Your task to perform on an android device: clear history in the chrome app Image 0: 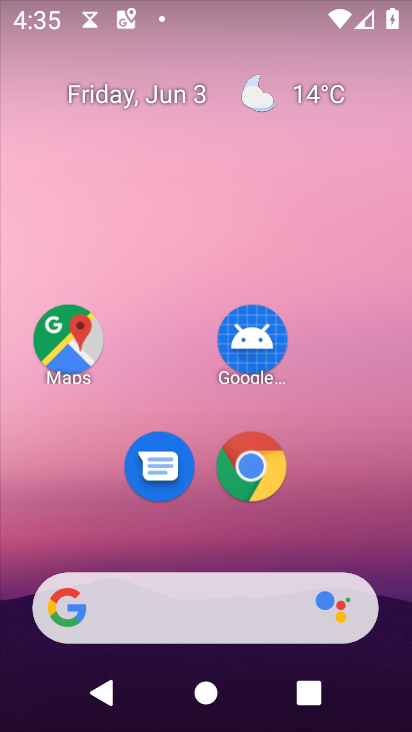
Step 0: click (265, 473)
Your task to perform on an android device: clear history in the chrome app Image 1: 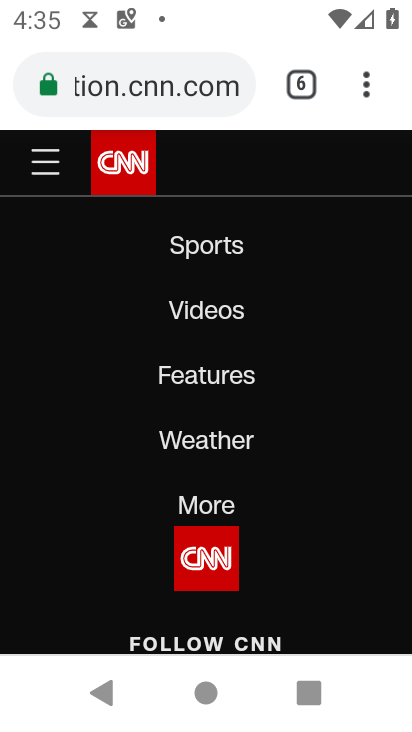
Step 1: click (359, 82)
Your task to perform on an android device: clear history in the chrome app Image 2: 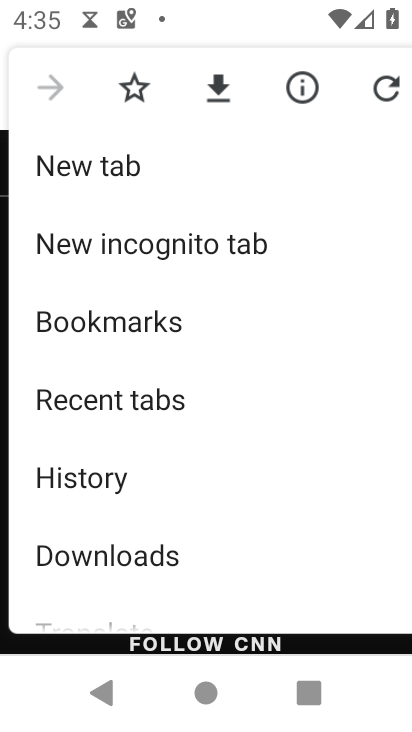
Step 2: drag from (260, 562) to (248, 92)
Your task to perform on an android device: clear history in the chrome app Image 3: 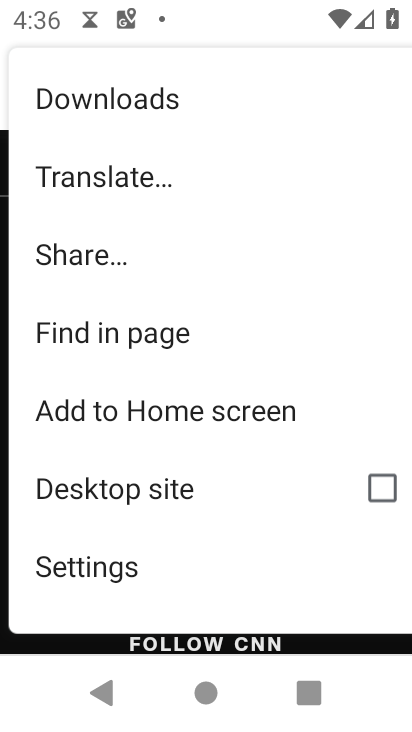
Step 3: drag from (208, 444) to (256, 57)
Your task to perform on an android device: clear history in the chrome app Image 4: 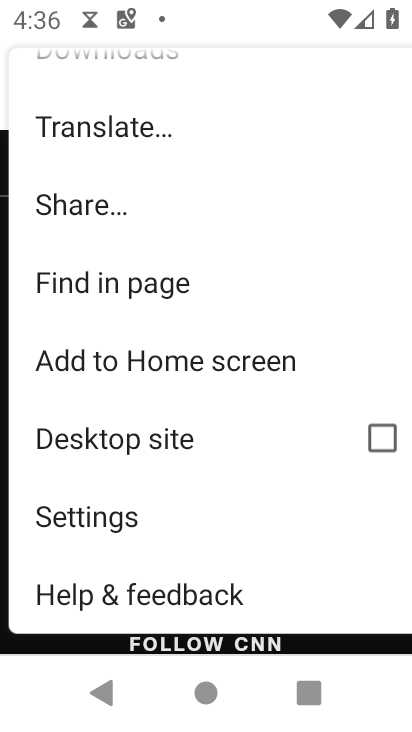
Step 4: click (130, 503)
Your task to perform on an android device: clear history in the chrome app Image 5: 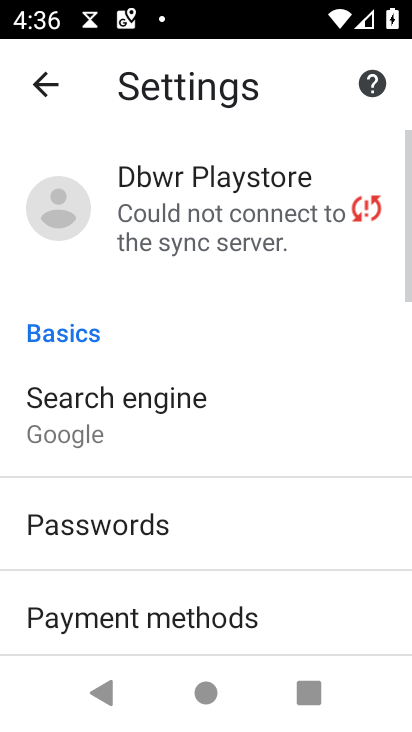
Step 5: drag from (188, 489) to (236, 131)
Your task to perform on an android device: clear history in the chrome app Image 6: 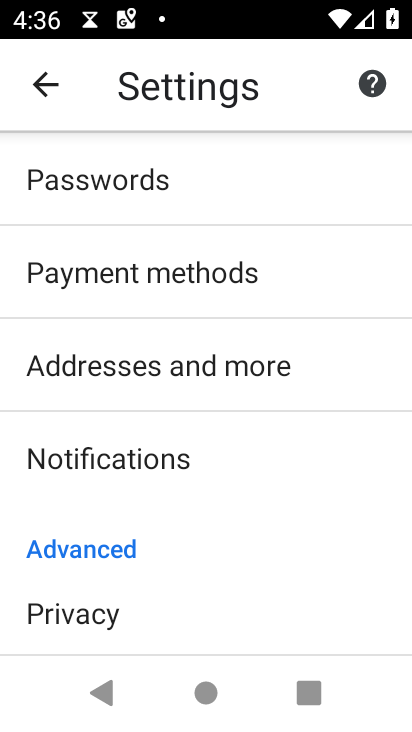
Step 6: drag from (237, 527) to (248, 220)
Your task to perform on an android device: clear history in the chrome app Image 7: 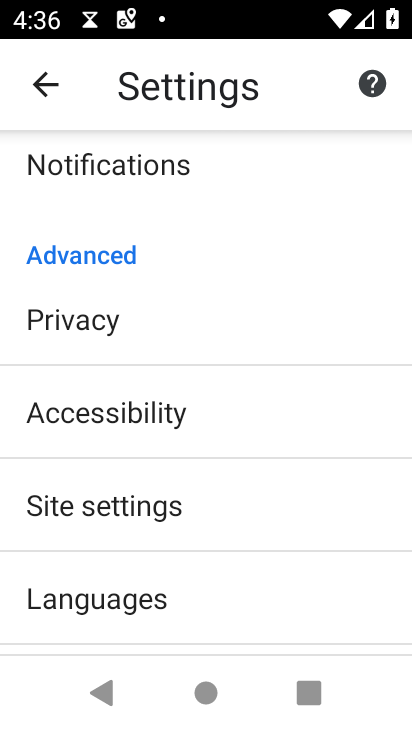
Step 7: click (252, 335)
Your task to perform on an android device: clear history in the chrome app Image 8: 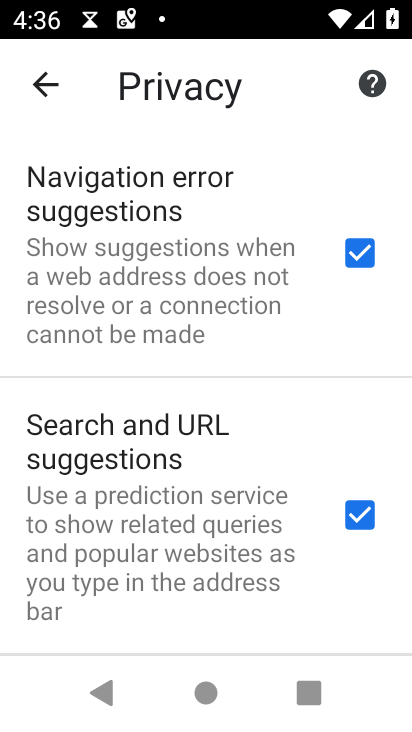
Step 8: drag from (211, 470) to (260, 139)
Your task to perform on an android device: clear history in the chrome app Image 9: 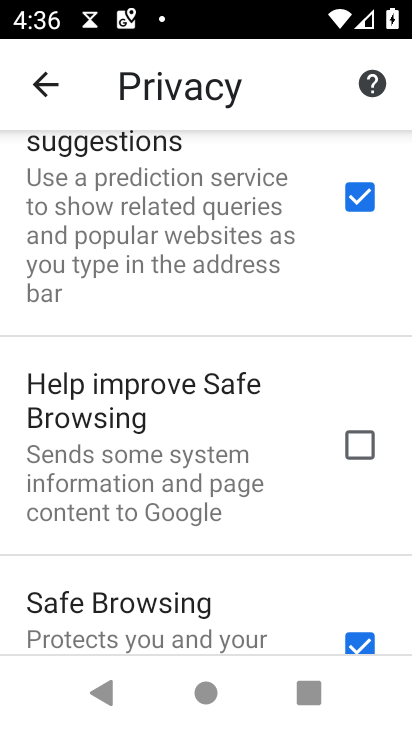
Step 9: drag from (157, 503) to (247, 145)
Your task to perform on an android device: clear history in the chrome app Image 10: 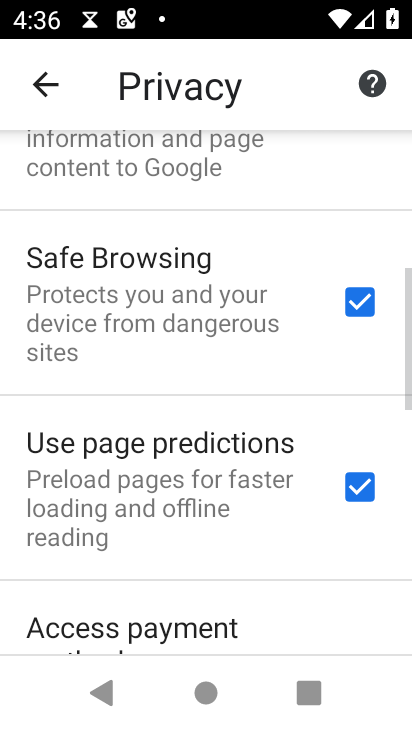
Step 10: drag from (217, 546) to (255, 155)
Your task to perform on an android device: clear history in the chrome app Image 11: 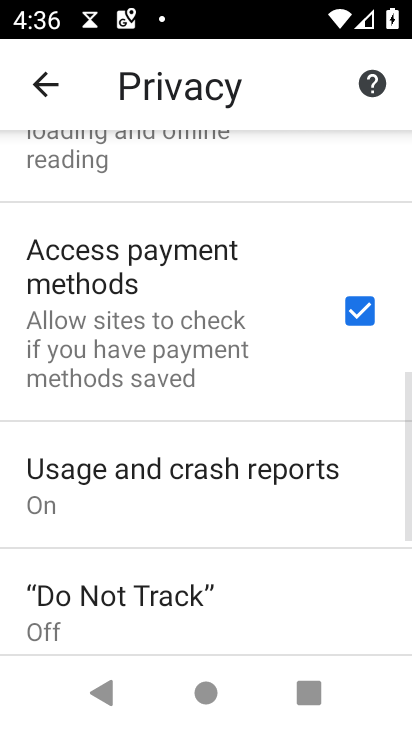
Step 11: drag from (191, 494) to (206, 175)
Your task to perform on an android device: clear history in the chrome app Image 12: 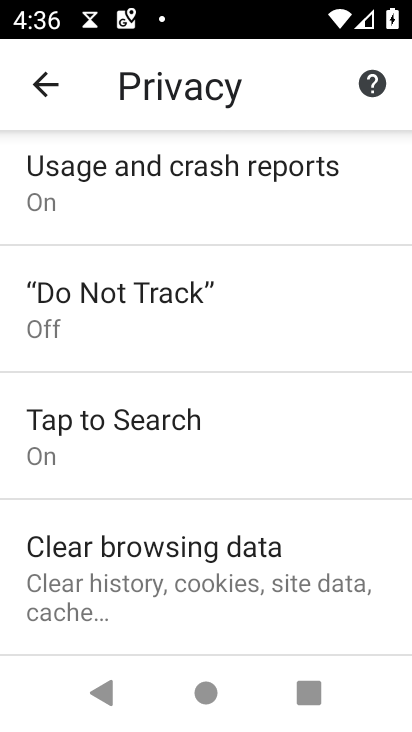
Step 12: click (143, 554)
Your task to perform on an android device: clear history in the chrome app Image 13: 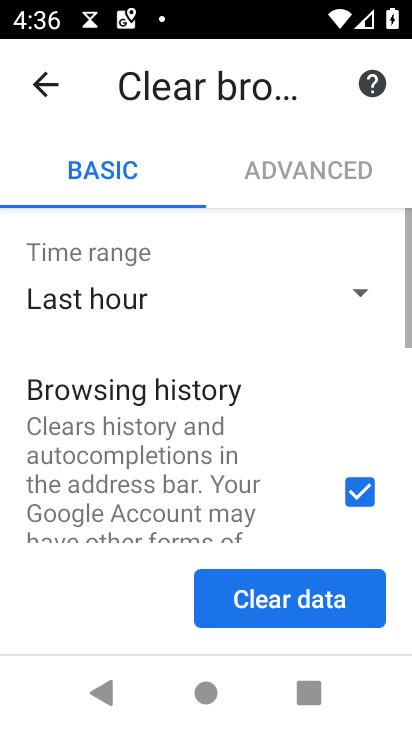
Step 13: drag from (185, 449) to (243, 121)
Your task to perform on an android device: clear history in the chrome app Image 14: 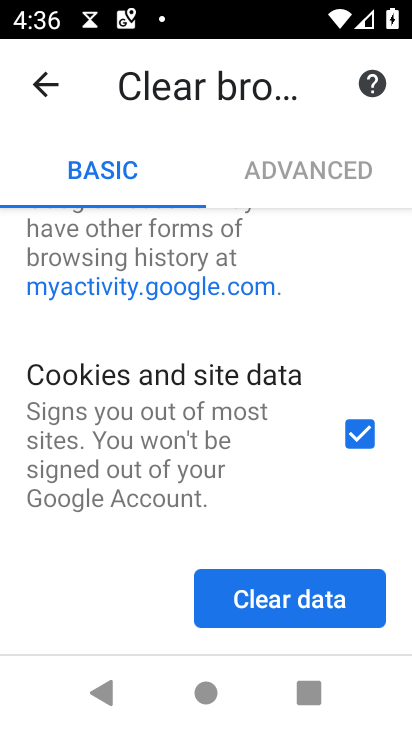
Step 14: click (346, 418)
Your task to perform on an android device: clear history in the chrome app Image 15: 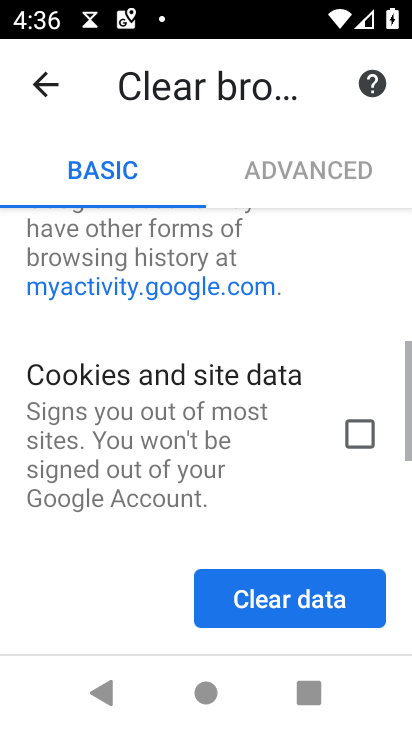
Step 15: drag from (256, 429) to (296, 151)
Your task to perform on an android device: clear history in the chrome app Image 16: 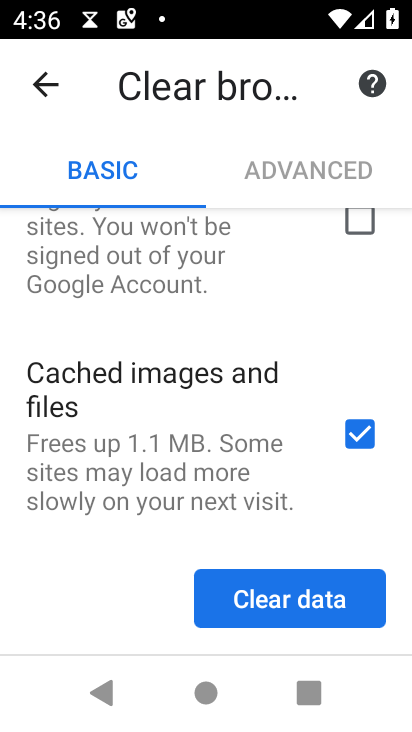
Step 16: click (292, 416)
Your task to perform on an android device: clear history in the chrome app Image 17: 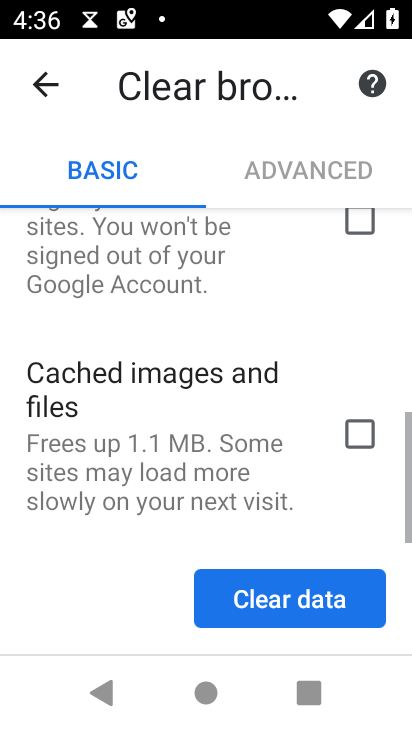
Step 17: drag from (240, 462) to (260, 135)
Your task to perform on an android device: clear history in the chrome app Image 18: 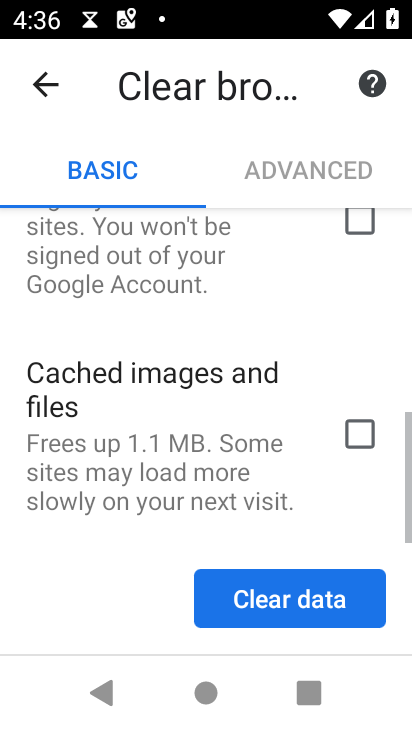
Step 18: click (288, 600)
Your task to perform on an android device: clear history in the chrome app Image 19: 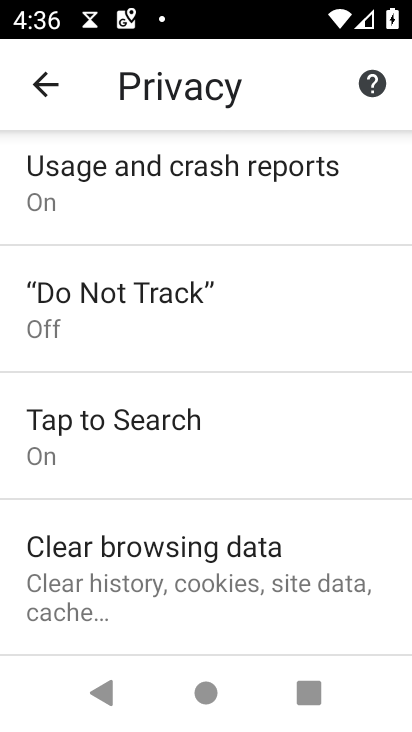
Step 19: task complete